Your task to perform on an android device: Open battery settings Image 0: 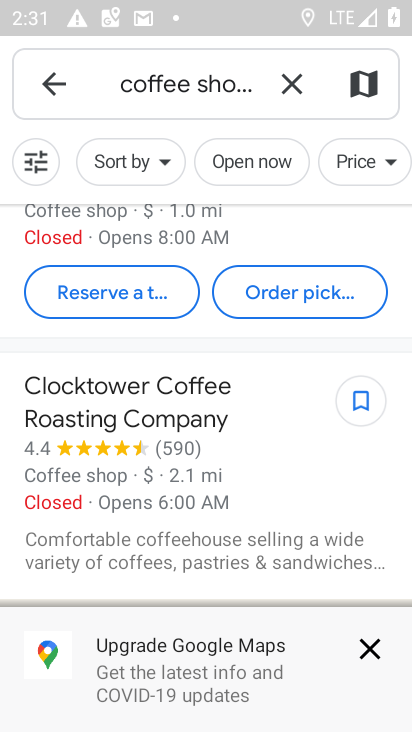
Step 0: press home button
Your task to perform on an android device: Open battery settings Image 1: 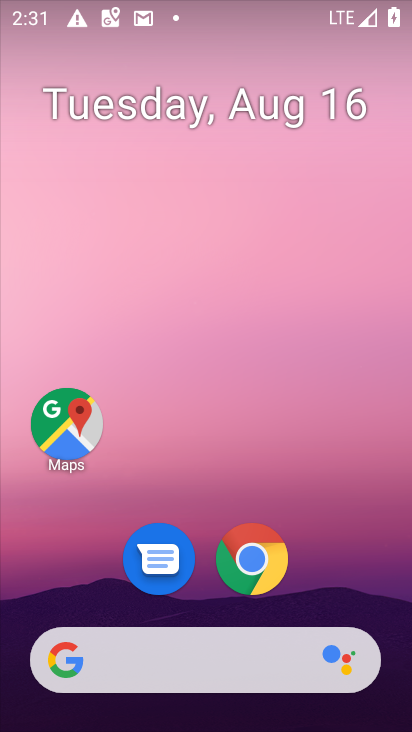
Step 1: drag from (368, 585) to (324, 186)
Your task to perform on an android device: Open battery settings Image 2: 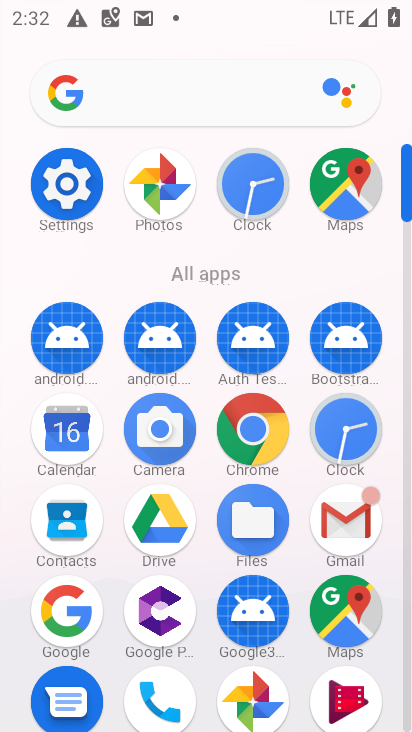
Step 2: click (408, 678)
Your task to perform on an android device: Open battery settings Image 3: 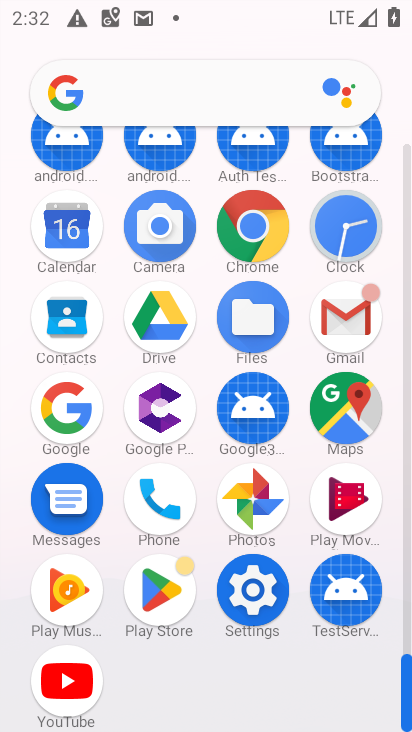
Step 3: click (253, 590)
Your task to perform on an android device: Open battery settings Image 4: 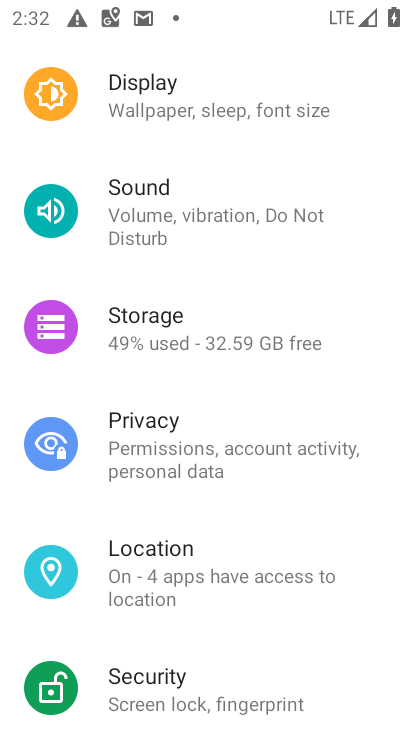
Step 4: drag from (359, 200) to (348, 509)
Your task to perform on an android device: Open battery settings Image 5: 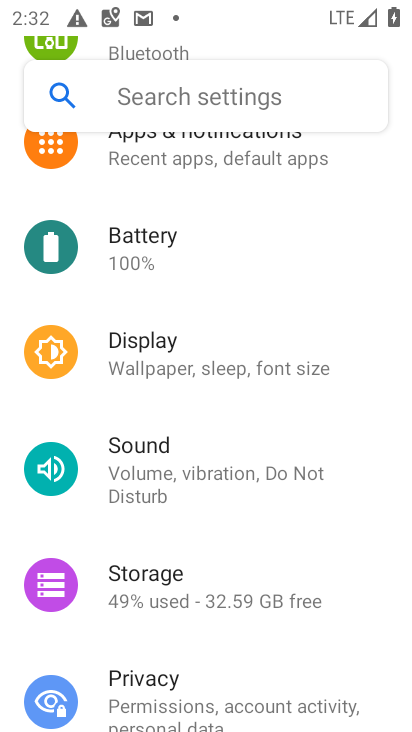
Step 5: click (120, 240)
Your task to perform on an android device: Open battery settings Image 6: 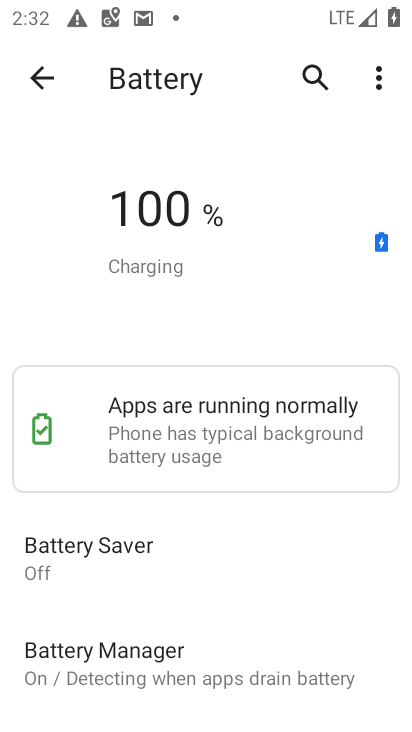
Step 6: task complete